Your task to perform on an android device: open app "Firefox Browser" (install if not already installed) Image 0: 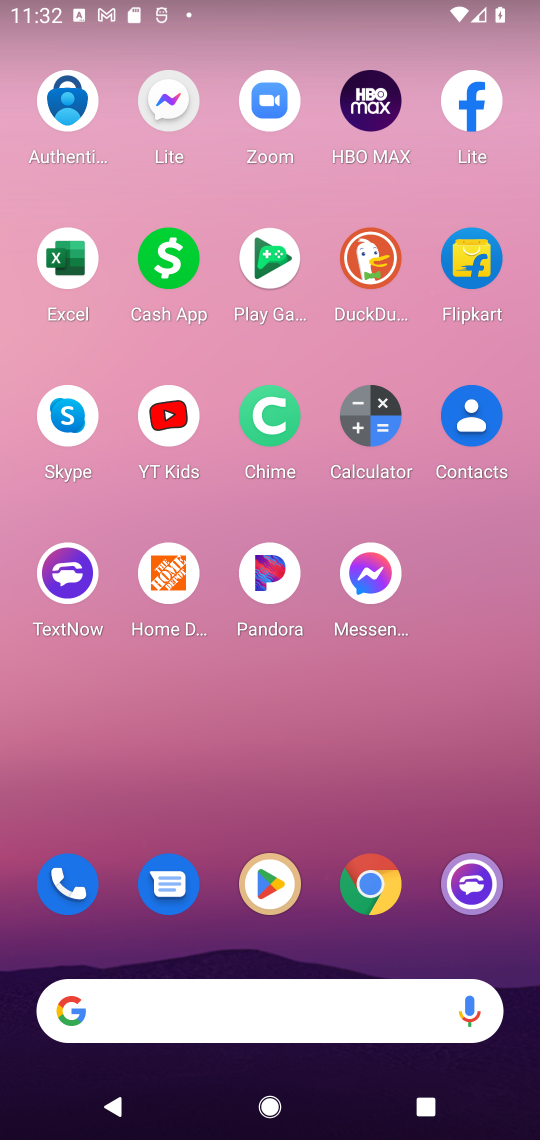
Step 0: press home button
Your task to perform on an android device: open app "Firefox Browser" (install if not already installed) Image 1: 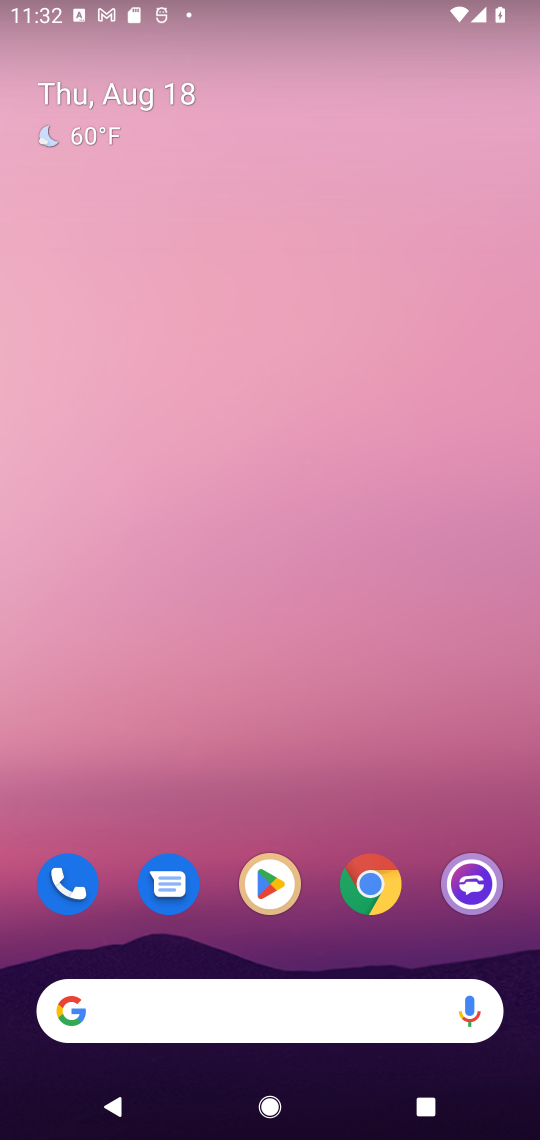
Step 1: drag from (207, 1022) to (278, 41)
Your task to perform on an android device: open app "Firefox Browser" (install if not already installed) Image 2: 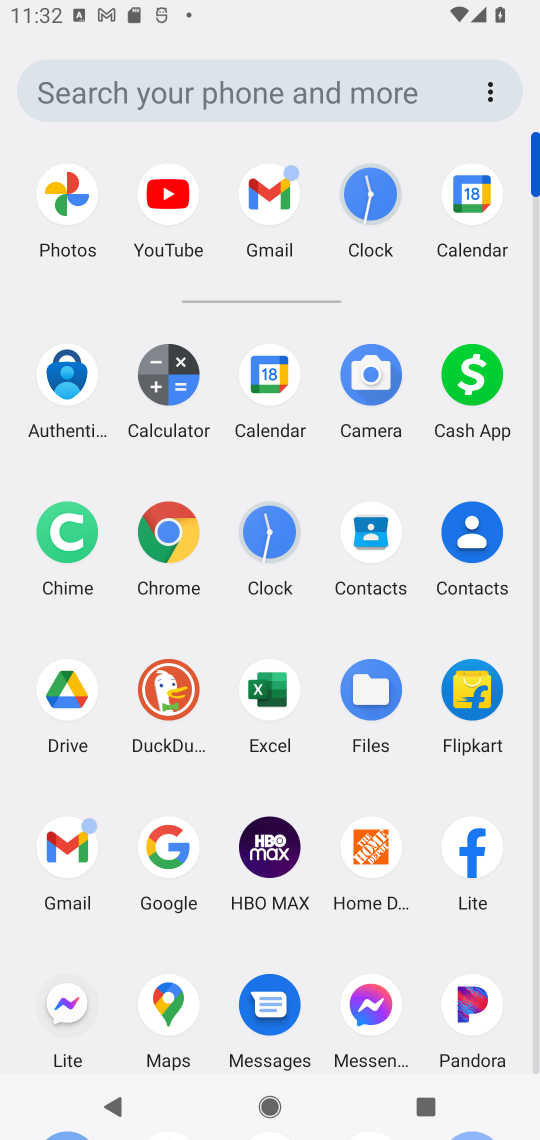
Step 2: drag from (317, 954) to (314, 394)
Your task to perform on an android device: open app "Firefox Browser" (install if not already installed) Image 3: 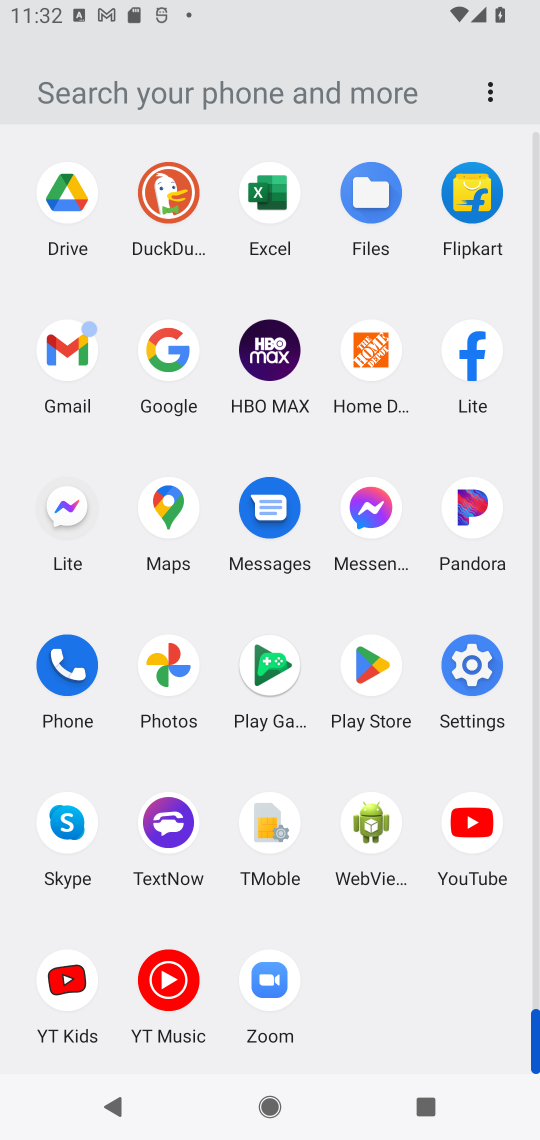
Step 3: click (384, 668)
Your task to perform on an android device: open app "Firefox Browser" (install if not already installed) Image 4: 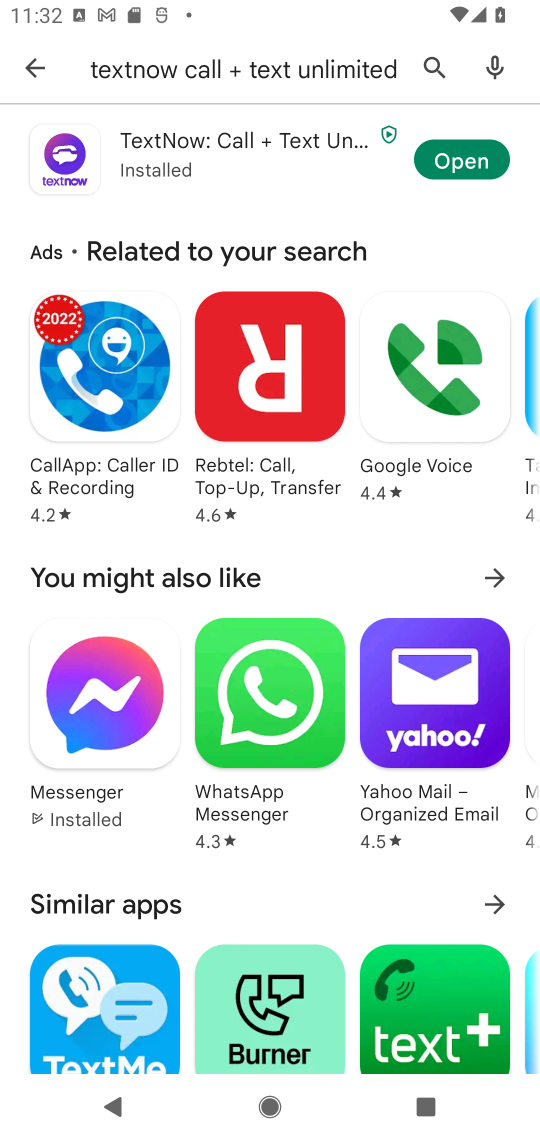
Step 4: press back button
Your task to perform on an android device: open app "Firefox Browser" (install if not already installed) Image 5: 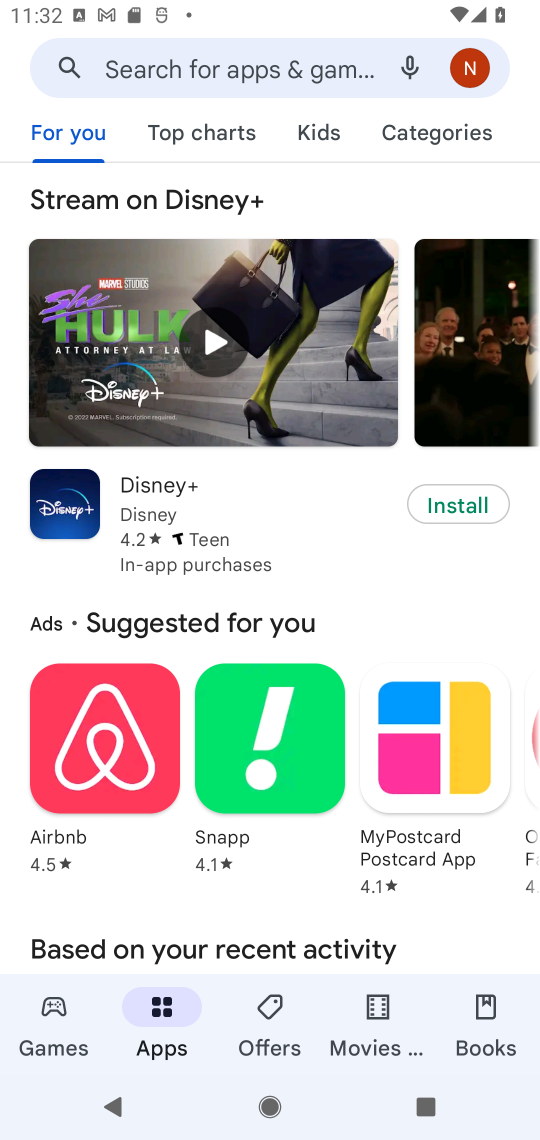
Step 5: click (306, 55)
Your task to perform on an android device: open app "Firefox Browser" (install if not already installed) Image 6: 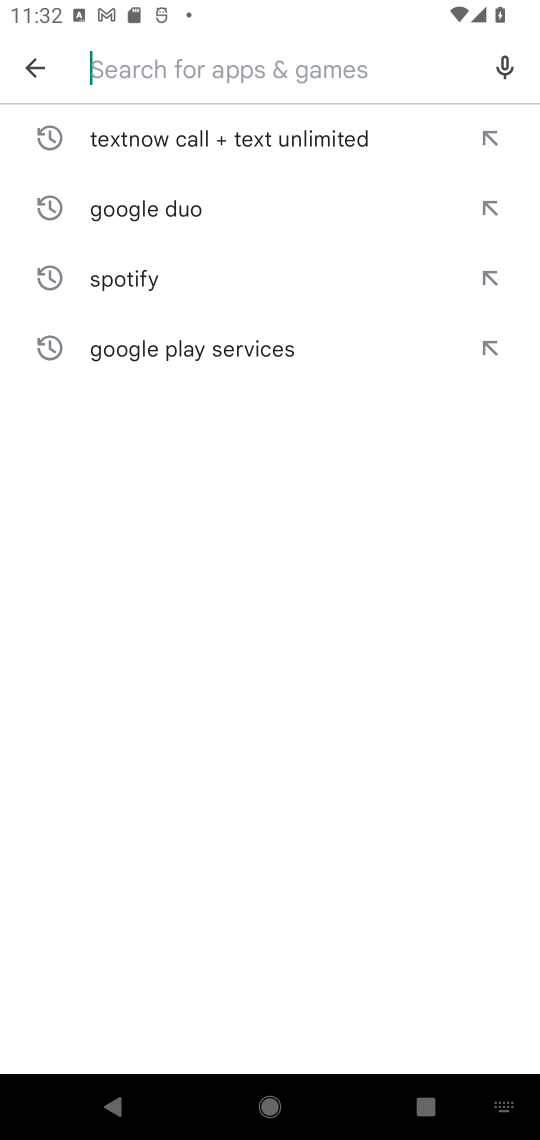
Step 6: type "Firefox Browser"
Your task to perform on an android device: open app "Firefox Browser" (install if not already installed) Image 7: 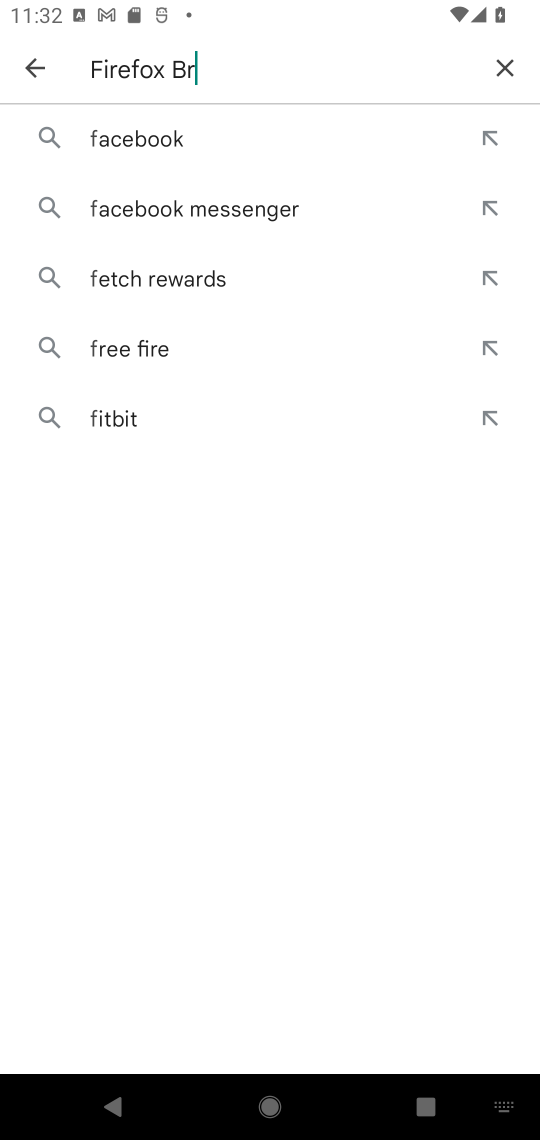
Step 7: type ""
Your task to perform on an android device: open app "Firefox Browser" (install if not already installed) Image 8: 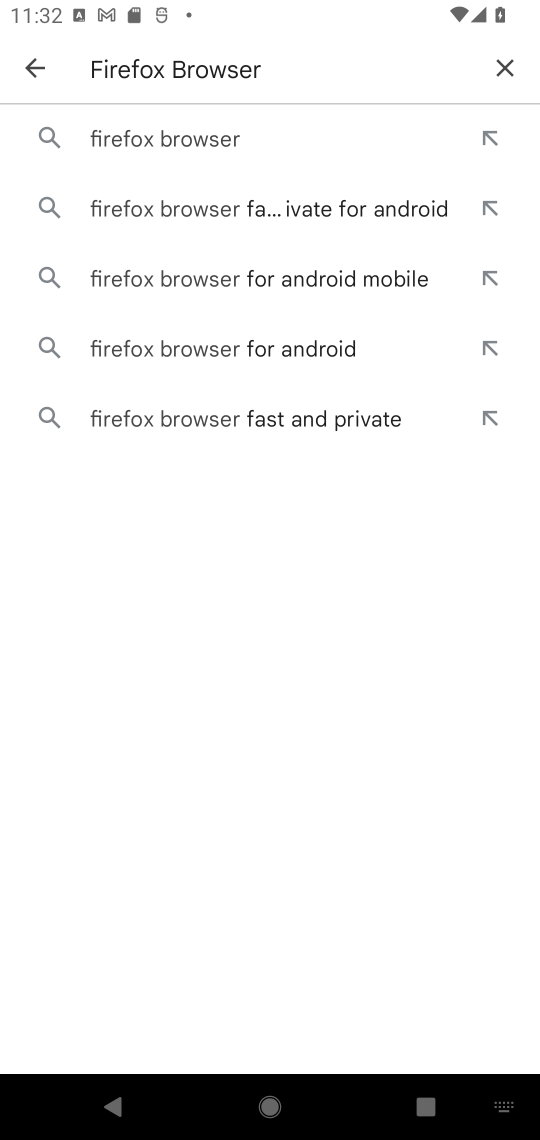
Step 8: click (199, 143)
Your task to perform on an android device: open app "Firefox Browser" (install if not already installed) Image 9: 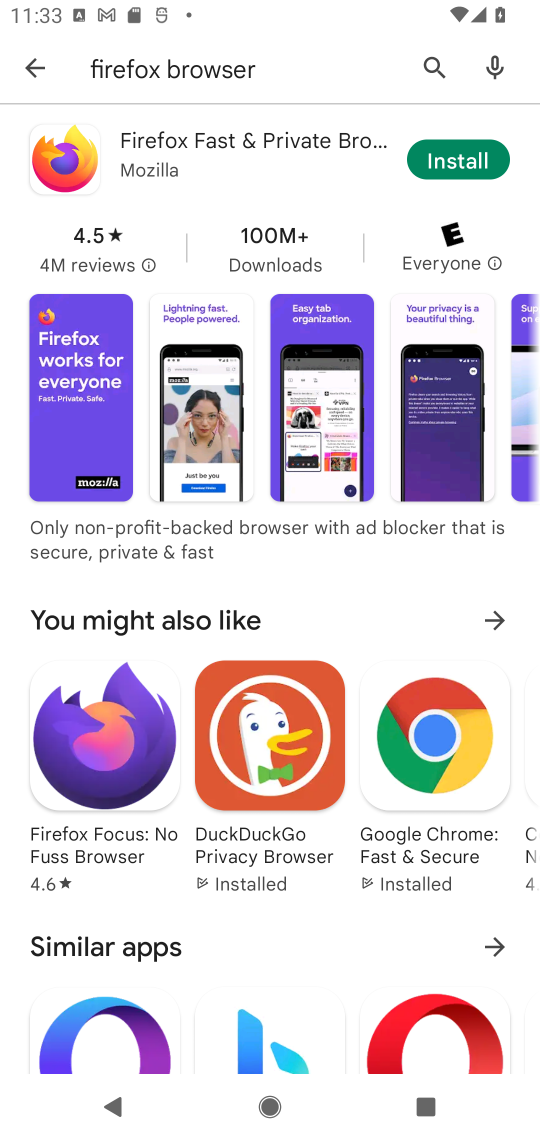
Step 9: click (436, 165)
Your task to perform on an android device: open app "Firefox Browser" (install if not already installed) Image 10: 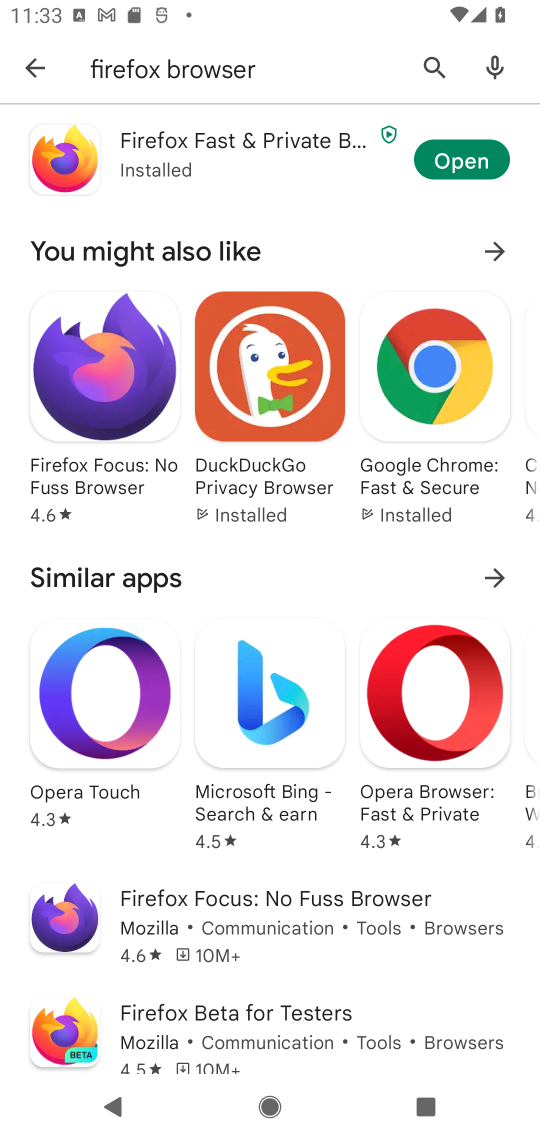
Step 10: click (442, 156)
Your task to perform on an android device: open app "Firefox Browser" (install if not already installed) Image 11: 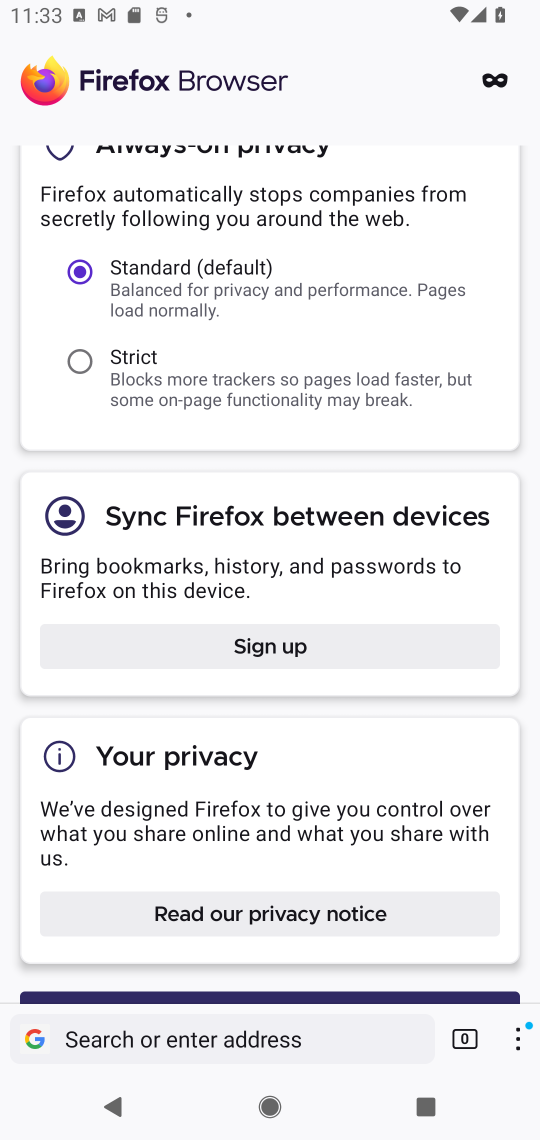
Step 11: task complete